Your task to perform on an android device: add a contact in the contacts app Image 0: 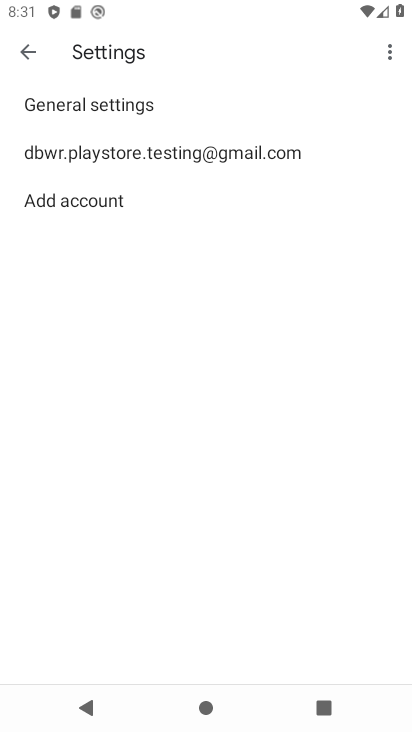
Step 0: press home button
Your task to perform on an android device: add a contact in the contacts app Image 1: 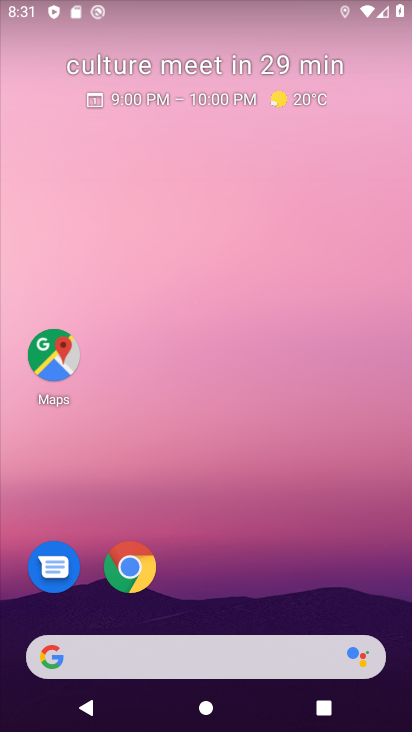
Step 1: drag from (202, 608) to (81, 5)
Your task to perform on an android device: add a contact in the contacts app Image 2: 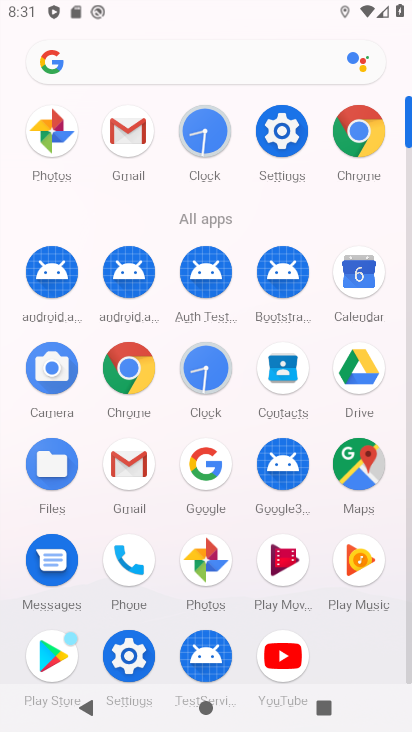
Step 2: drag from (164, 602) to (199, 128)
Your task to perform on an android device: add a contact in the contacts app Image 3: 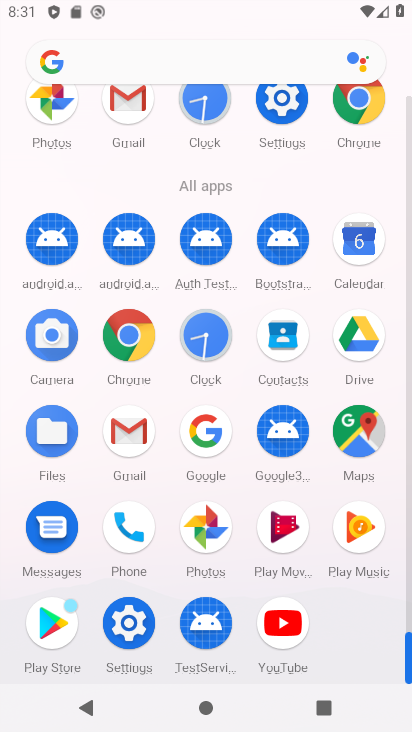
Step 3: click (291, 339)
Your task to perform on an android device: add a contact in the contacts app Image 4: 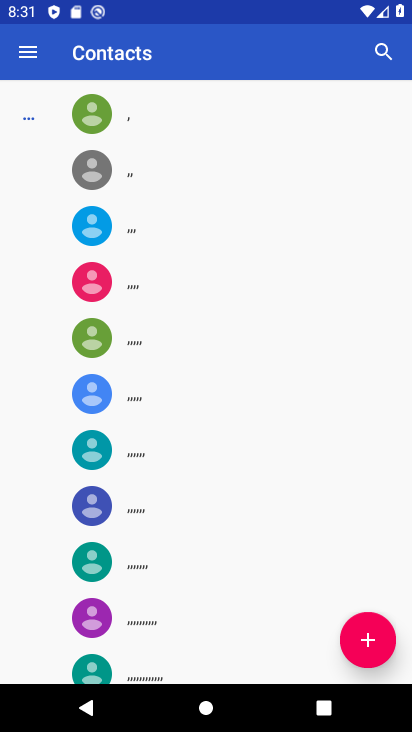
Step 4: click (357, 641)
Your task to perform on an android device: add a contact in the contacts app Image 5: 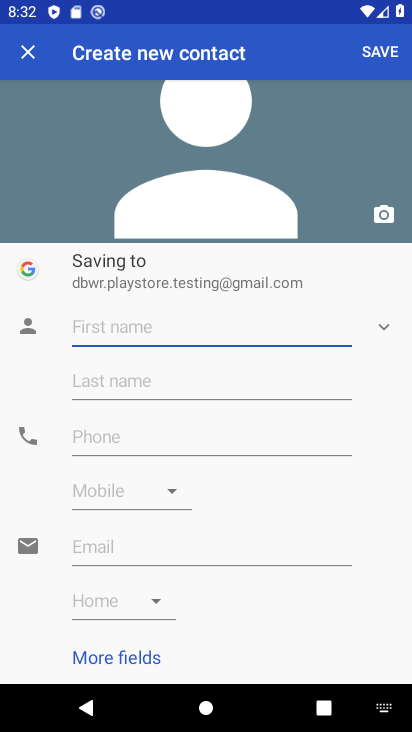
Step 5: type "oijuhgvfc"
Your task to perform on an android device: add a contact in the contacts app Image 6: 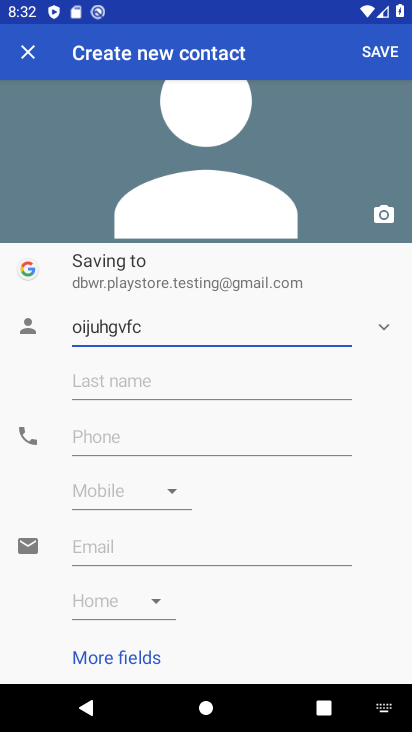
Step 6: click (152, 438)
Your task to perform on an android device: add a contact in the contacts app Image 7: 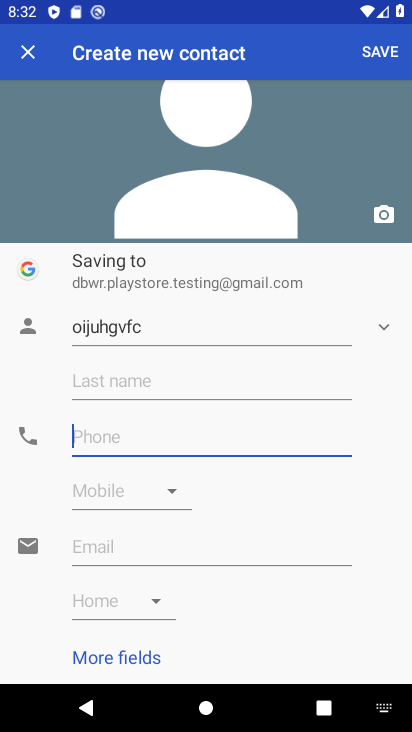
Step 7: type "34567898"
Your task to perform on an android device: add a contact in the contacts app Image 8: 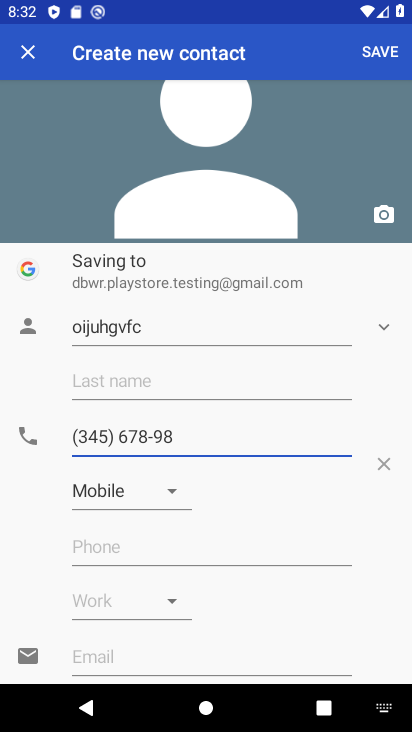
Step 8: click (386, 71)
Your task to perform on an android device: add a contact in the contacts app Image 9: 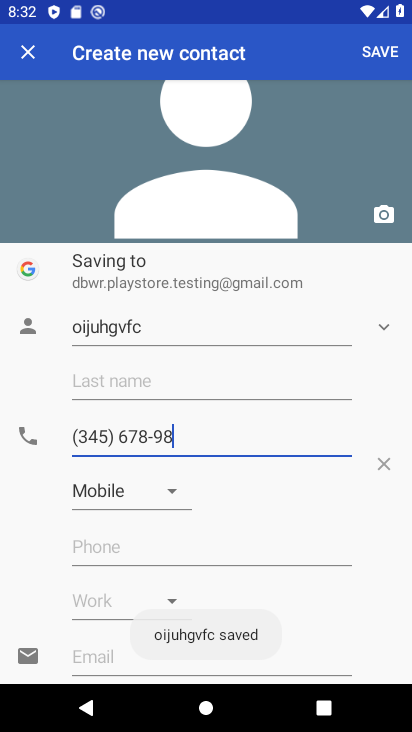
Step 9: task complete